Your task to perform on an android device: change the clock display to show seconds Image 0: 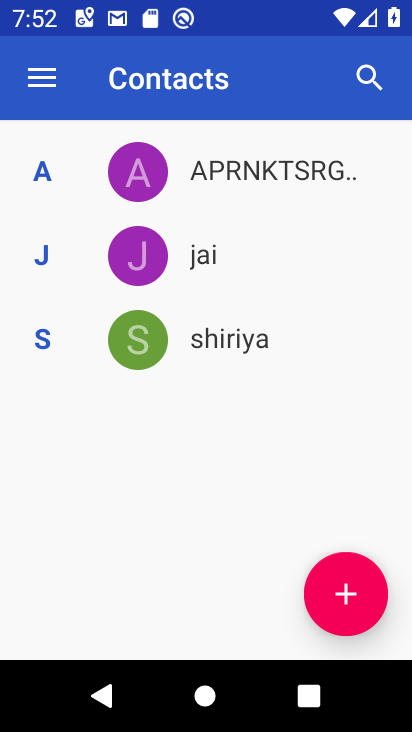
Step 0: press home button
Your task to perform on an android device: change the clock display to show seconds Image 1: 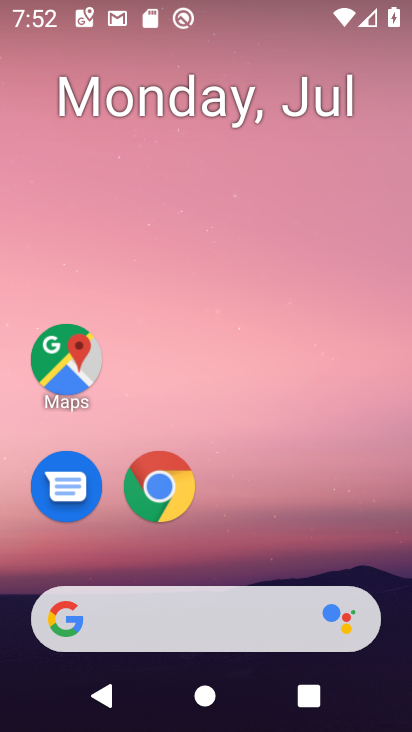
Step 1: drag from (367, 546) to (375, 111)
Your task to perform on an android device: change the clock display to show seconds Image 2: 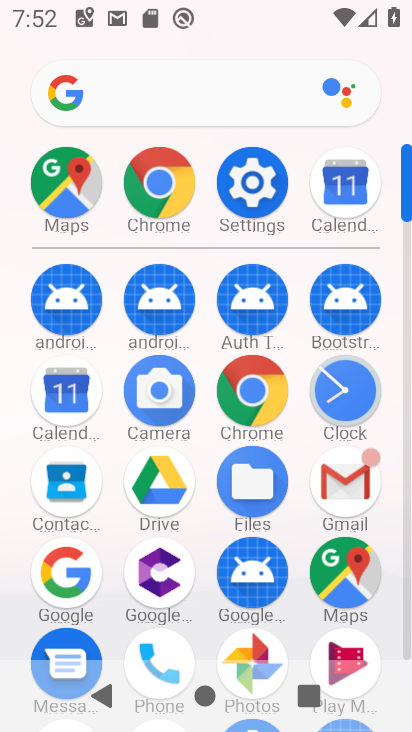
Step 2: click (344, 390)
Your task to perform on an android device: change the clock display to show seconds Image 3: 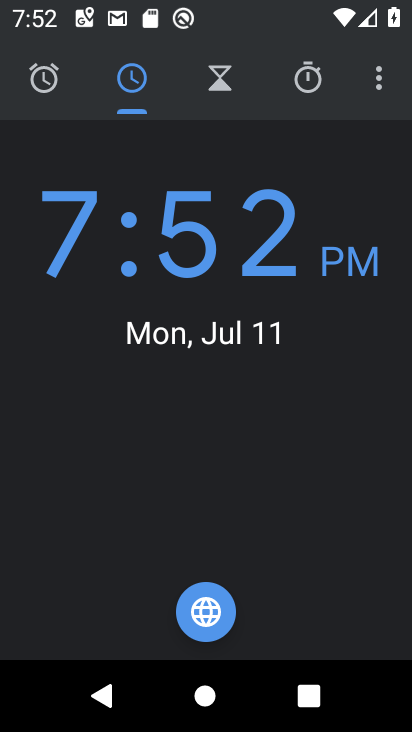
Step 3: click (380, 87)
Your task to perform on an android device: change the clock display to show seconds Image 4: 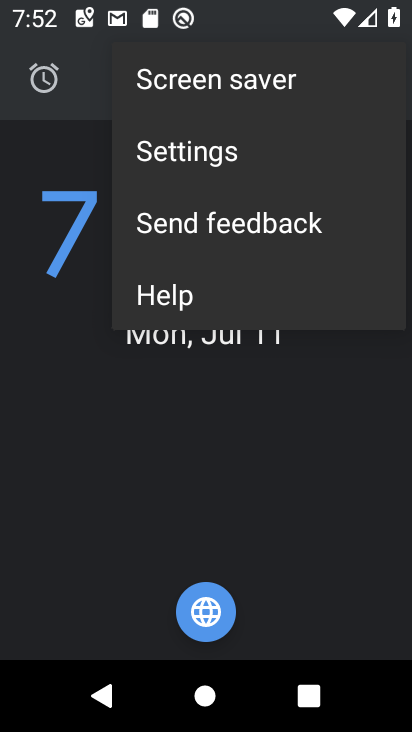
Step 4: click (326, 168)
Your task to perform on an android device: change the clock display to show seconds Image 5: 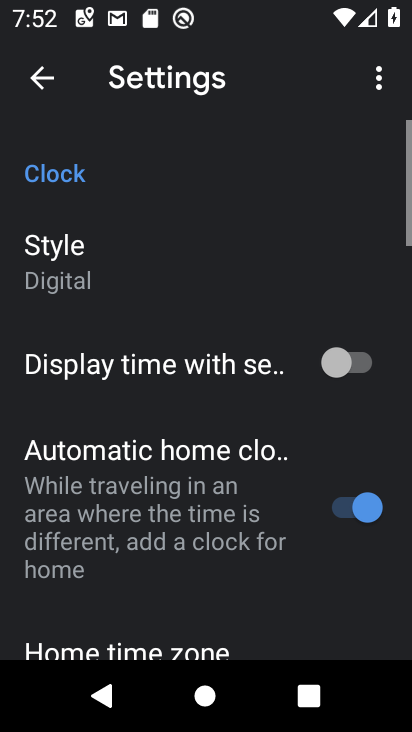
Step 5: drag from (319, 280) to (326, 191)
Your task to perform on an android device: change the clock display to show seconds Image 6: 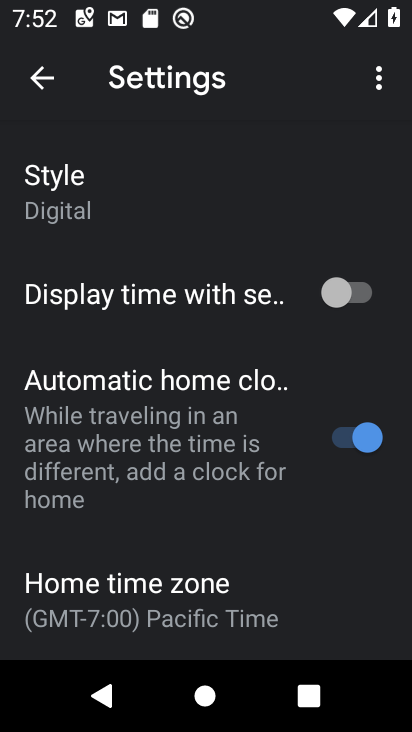
Step 6: click (330, 305)
Your task to perform on an android device: change the clock display to show seconds Image 7: 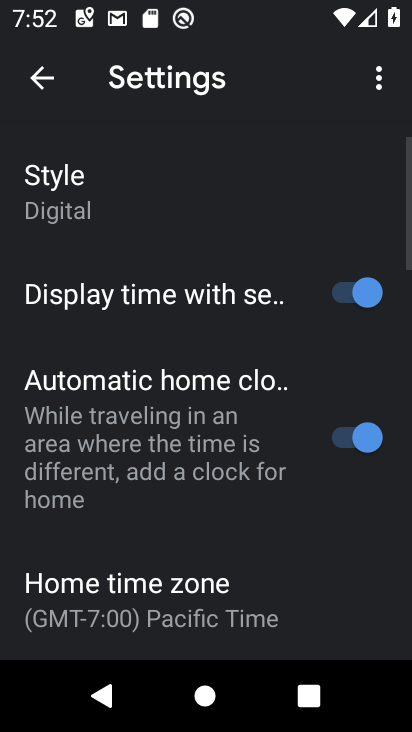
Step 7: task complete